Your task to perform on an android device: What's the weather? Image 0: 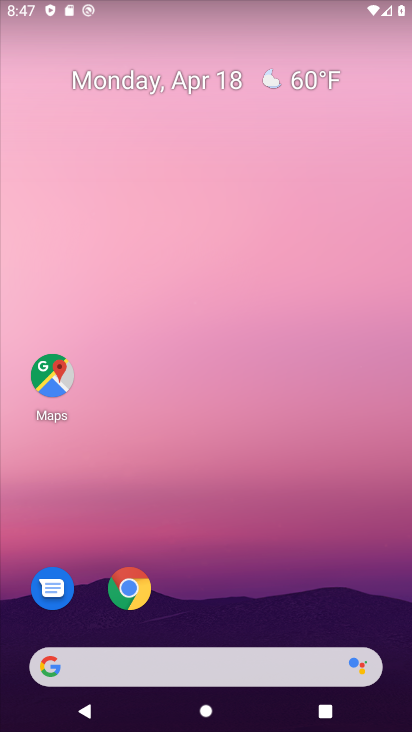
Step 0: drag from (236, 614) to (272, 143)
Your task to perform on an android device: What's the weather? Image 1: 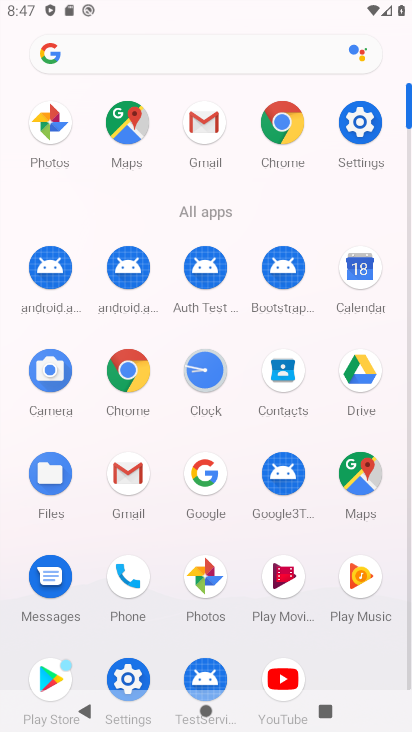
Step 1: click (130, 384)
Your task to perform on an android device: What's the weather? Image 2: 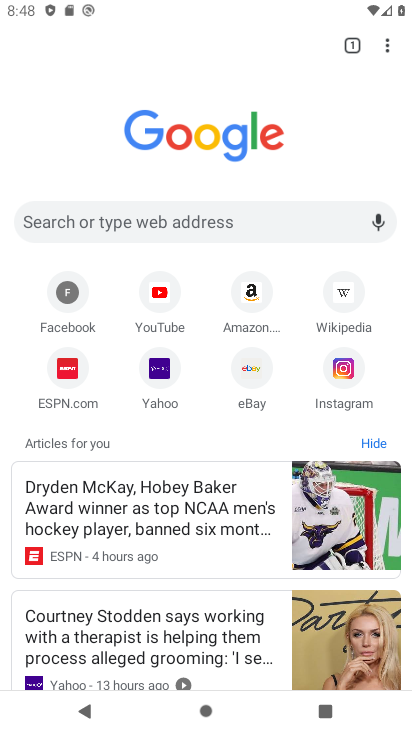
Step 2: click (235, 226)
Your task to perform on an android device: What's the weather? Image 3: 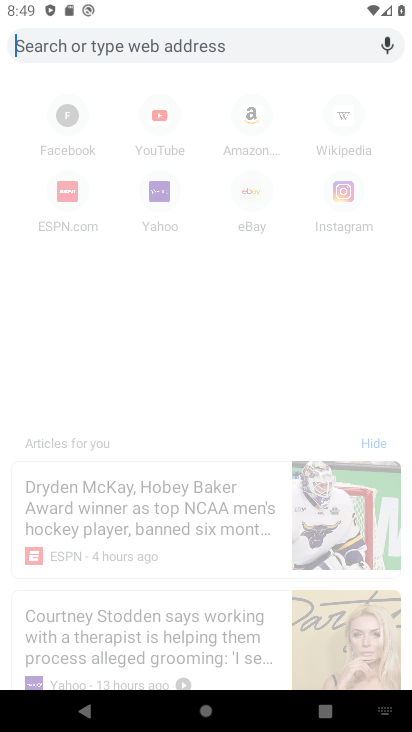
Step 3: type "whats the weather"
Your task to perform on an android device: What's the weather? Image 4: 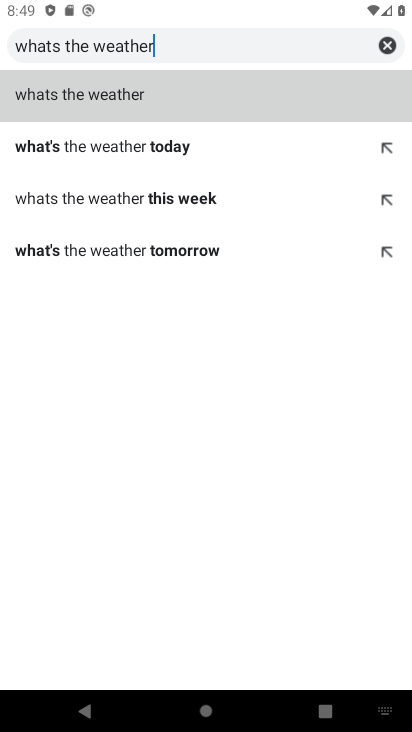
Step 4: click (124, 136)
Your task to perform on an android device: What's the weather? Image 5: 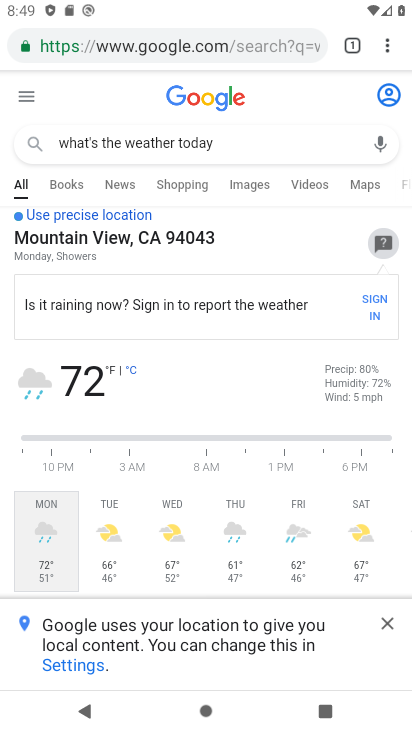
Step 5: task complete